Your task to perform on an android device: Do I have any events this weekend? Image 0: 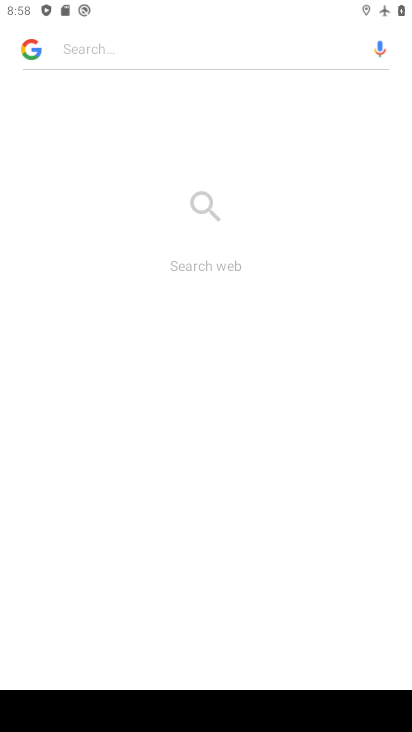
Step 0: press home button
Your task to perform on an android device: Do I have any events this weekend? Image 1: 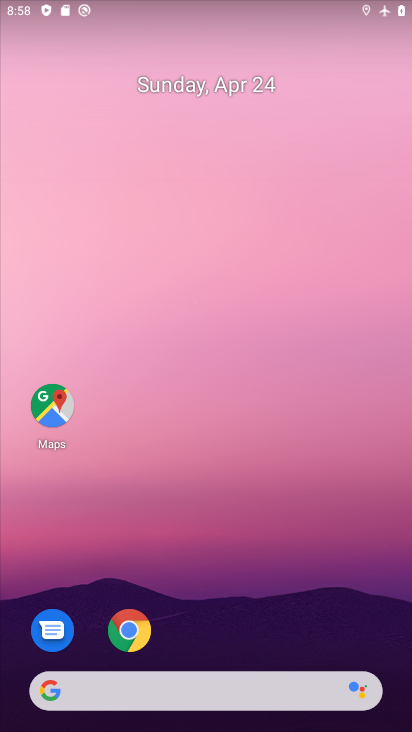
Step 1: drag from (204, 648) to (234, 155)
Your task to perform on an android device: Do I have any events this weekend? Image 2: 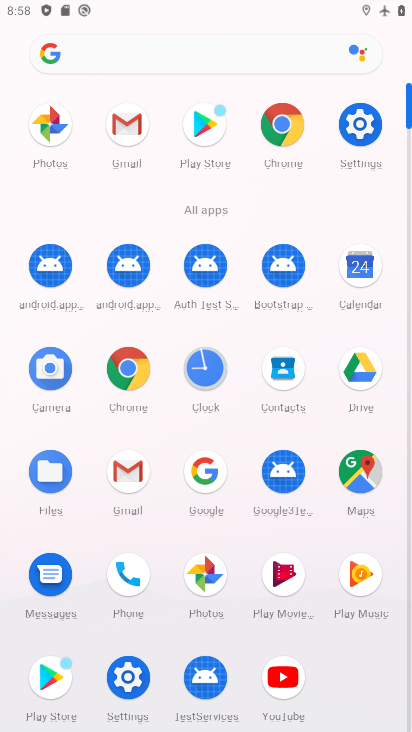
Step 2: click (361, 272)
Your task to perform on an android device: Do I have any events this weekend? Image 3: 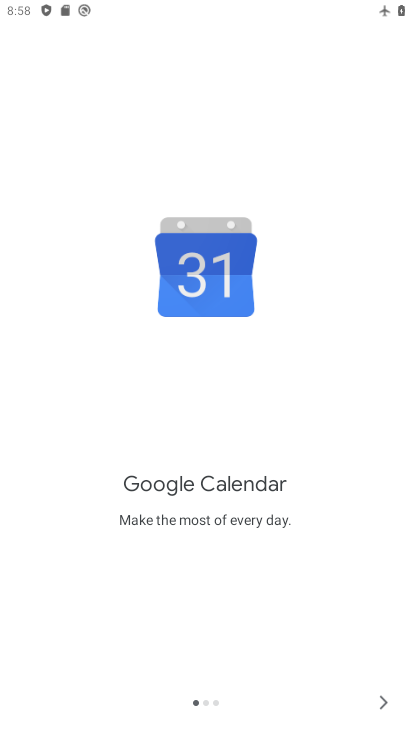
Step 3: click (385, 695)
Your task to perform on an android device: Do I have any events this weekend? Image 4: 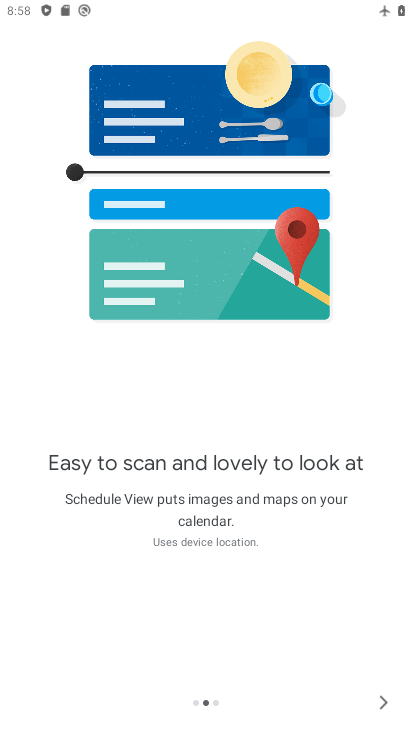
Step 4: click (385, 699)
Your task to perform on an android device: Do I have any events this weekend? Image 5: 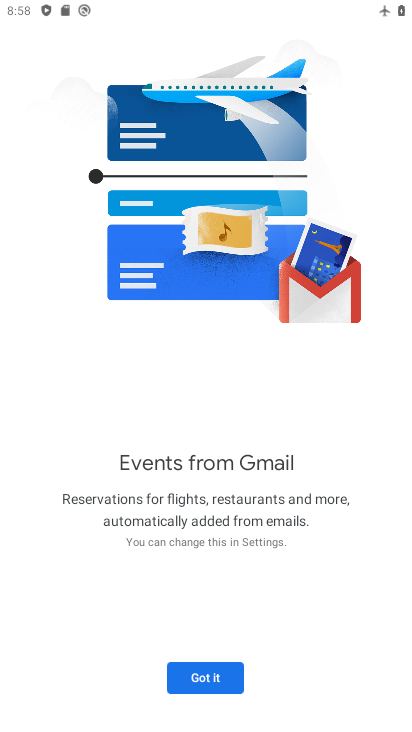
Step 5: click (213, 675)
Your task to perform on an android device: Do I have any events this weekend? Image 6: 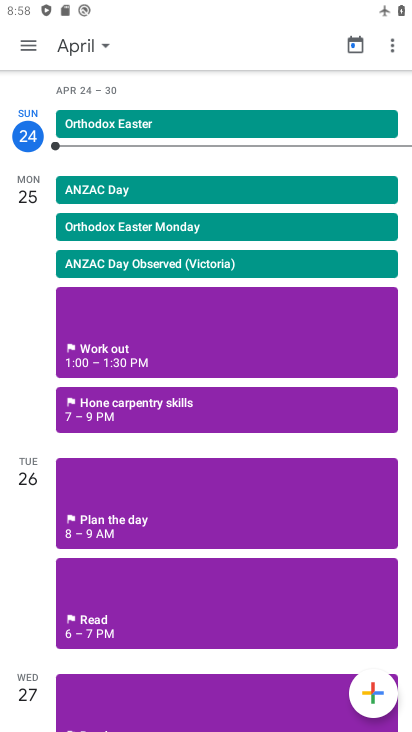
Step 6: click (85, 45)
Your task to perform on an android device: Do I have any events this weekend? Image 7: 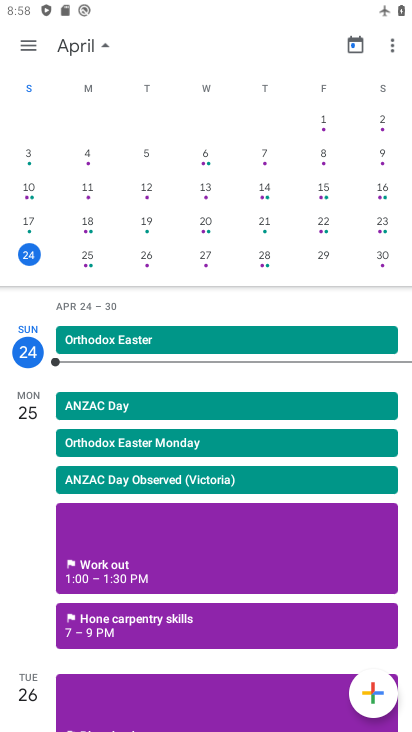
Step 7: click (382, 257)
Your task to perform on an android device: Do I have any events this weekend? Image 8: 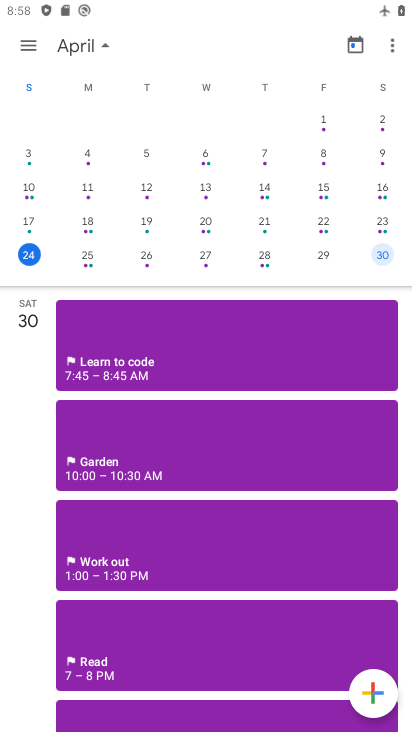
Step 8: drag from (401, 188) to (1, 148)
Your task to perform on an android device: Do I have any events this weekend? Image 9: 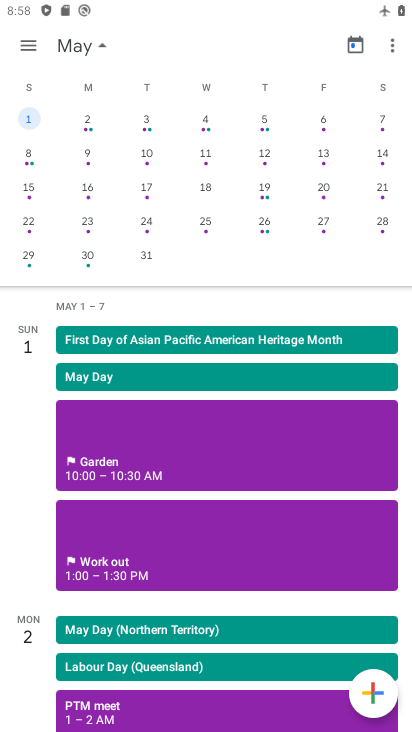
Step 9: click (34, 118)
Your task to perform on an android device: Do I have any events this weekend? Image 10: 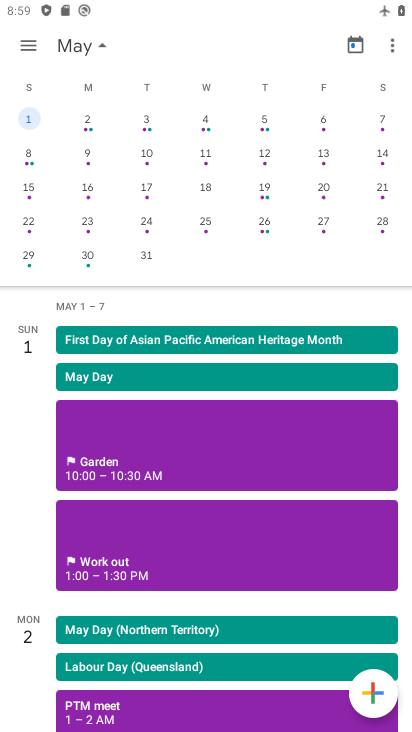
Step 10: task complete